Your task to perform on an android device: Do I have any events tomorrow? Image 0: 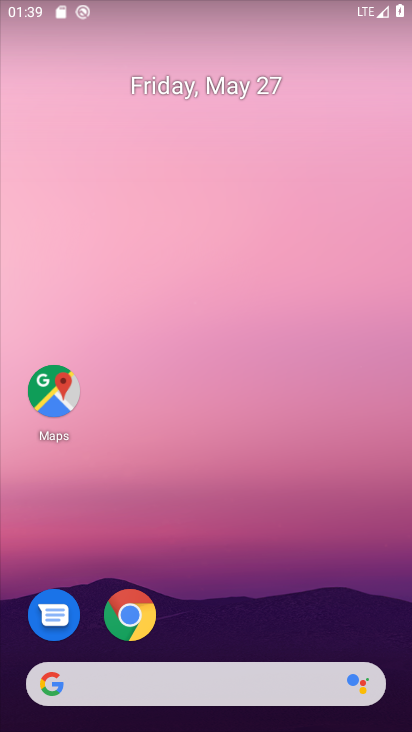
Step 0: drag from (362, 632) to (362, 258)
Your task to perform on an android device: Do I have any events tomorrow? Image 1: 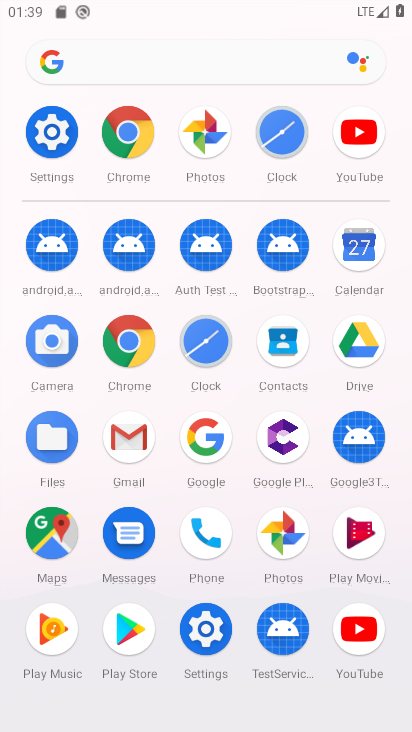
Step 1: click (371, 269)
Your task to perform on an android device: Do I have any events tomorrow? Image 2: 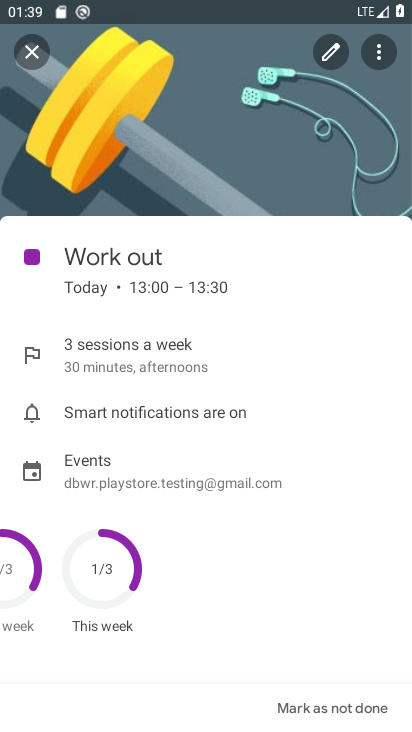
Step 2: click (42, 61)
Your task to perform on an android device: Do I have any events tomorrow? Image 3: 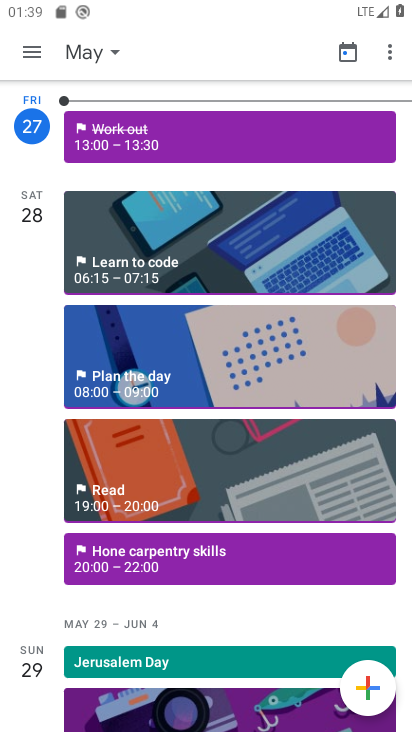
Step 3: click (179, 243)
Your task to perform on an android device: Do I have any events tomorrow? Image 4: 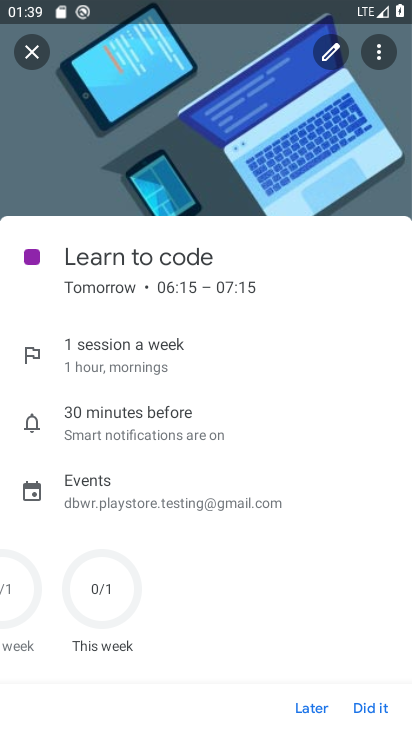
Step 4: task complete